Your task to perform on an android device: open app "Walmart Shopping & Grocery" Image 0: 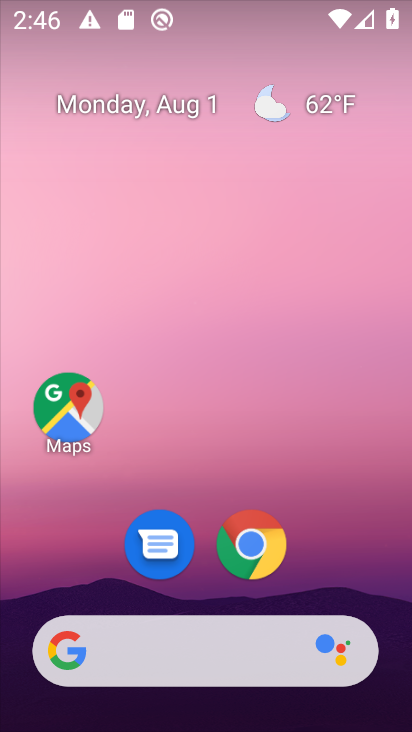
Step 0: drag from (376, 570) to (229, 67)
Your task to perform on an android device: open app "Walmart Shopping & Grocery" Image 1: 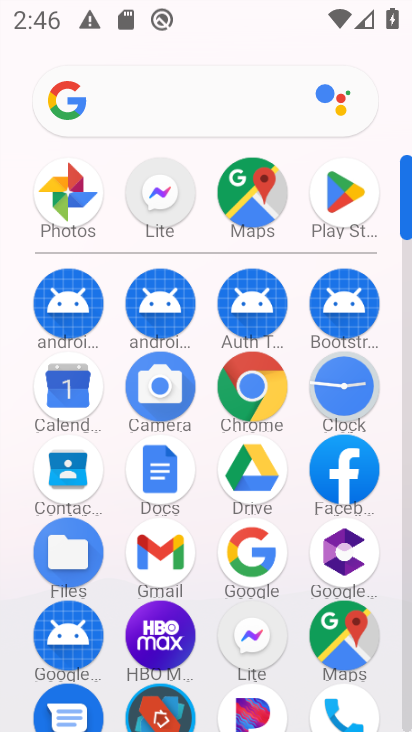
Step 1: click (341, 192)
Your task to perform on an android device: open app "Walmart Shopping & Grocery" Image 2: 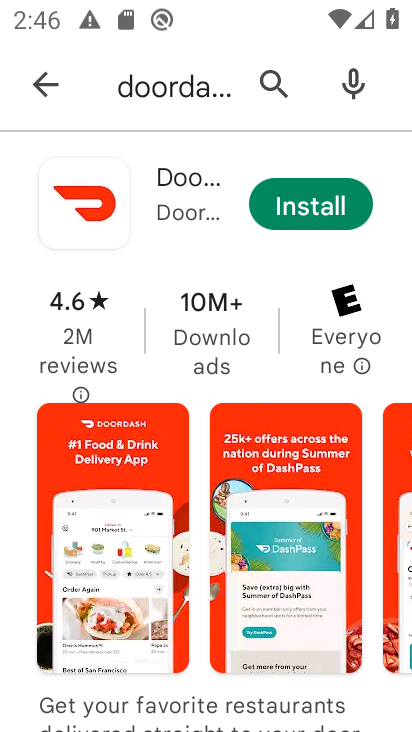
Step 2: press back button
Your task to perform on an android device: open app "Walmart Shopping & Grocery" Image 3: 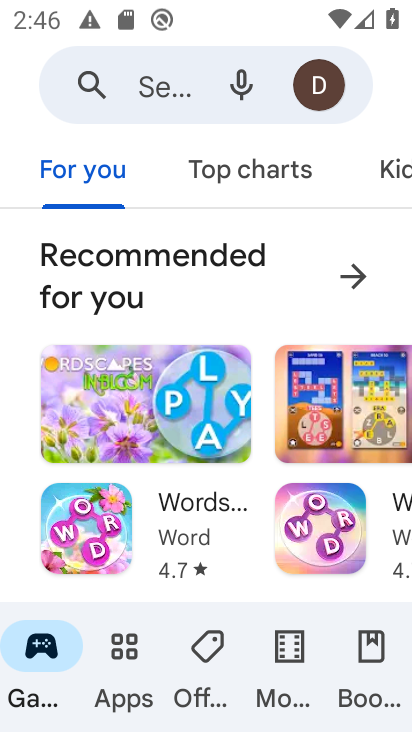
Step 3: click (157, 98)
Your task to perform on an android device: open app "Walmart Shopping & Grocery" Image 4: 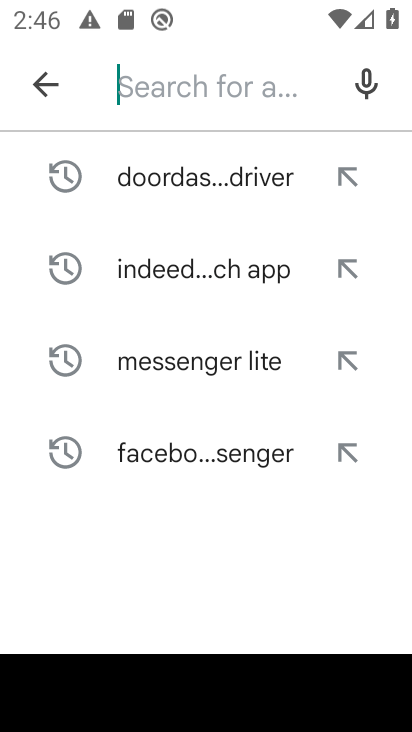
Step 4: type "Walmart Shopping & Grocery"
Your task to perform on an android device: open app "Walmart Shopping & Grocery" Image 5: 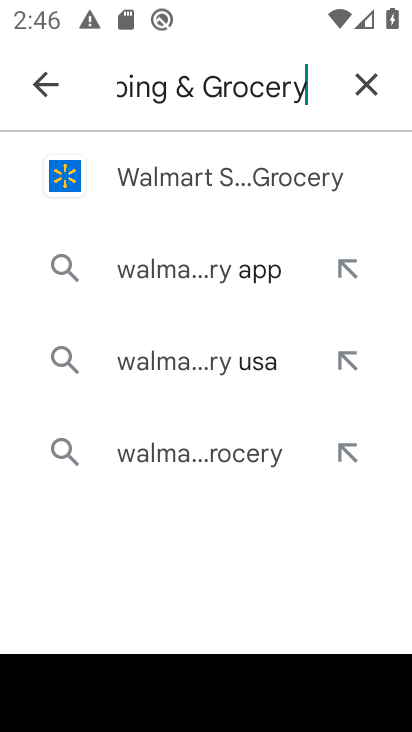
Step 5: click (175, 172)
Your task to perform on an android device: open app "Walmart Shopping & Grocery" Image 6: 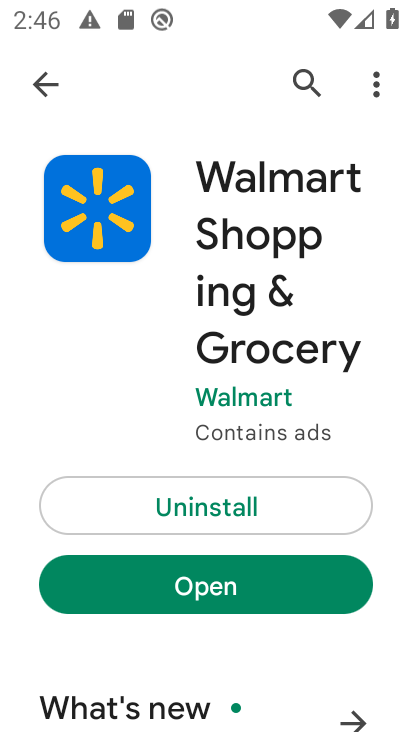
Step 6: click (139, 607)
Your task to perform on an android device: open app "Walmart Shopping & Grocery" Image 7: 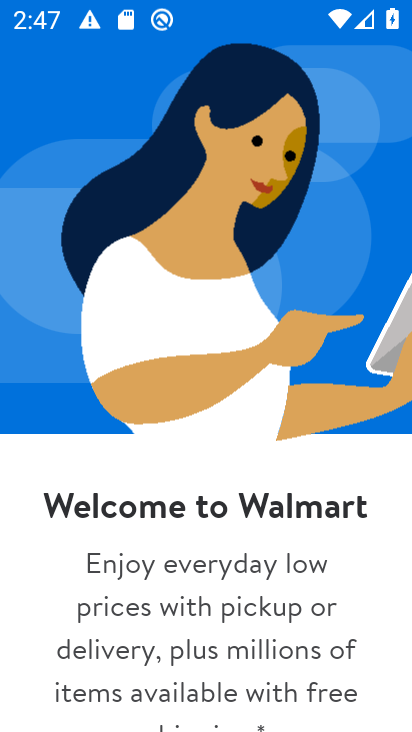
Step 7: task complete